Your task to perform on an android device: turn on data saver in the chrome app Image 0: 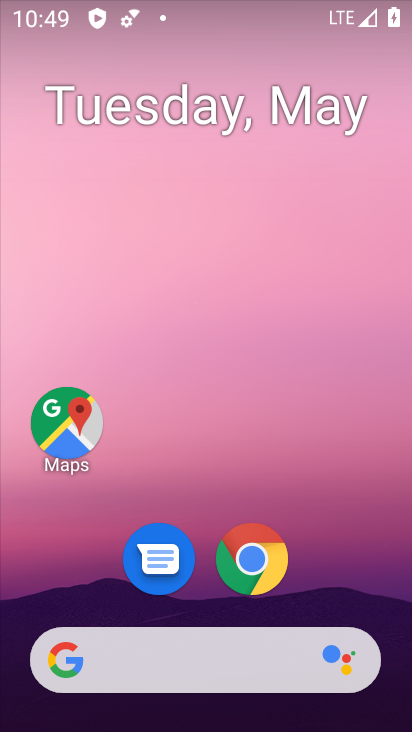
Step 0: drag from (325, 567) to (330, 173)
Your task to perform on an android device: turn on data saver in the chrome app Image 1: 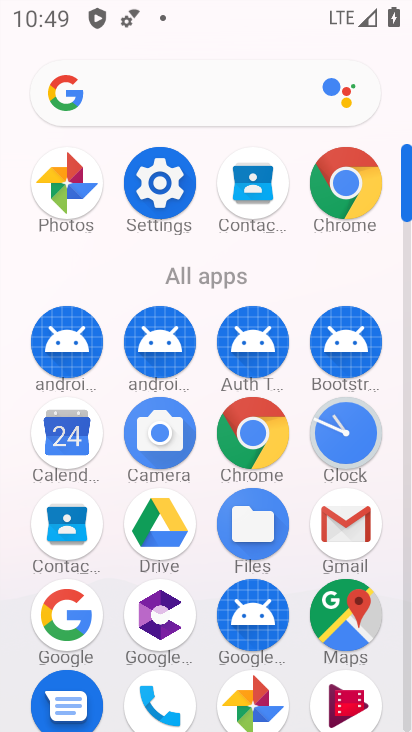
Step 1: click (253, 448)
Your task to perform on an android device: turn on data saver in the chrome app Image 2: 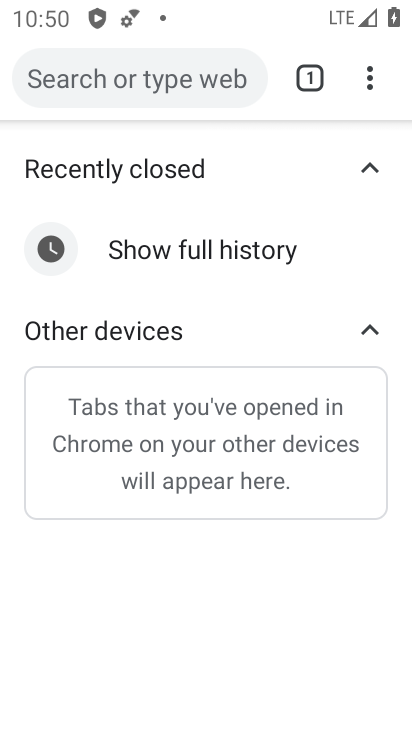
Step 2: drag from (367, 89) to (134, 623)
Your task to perform on an android device: turn on data saver in the chrome app Image 3: 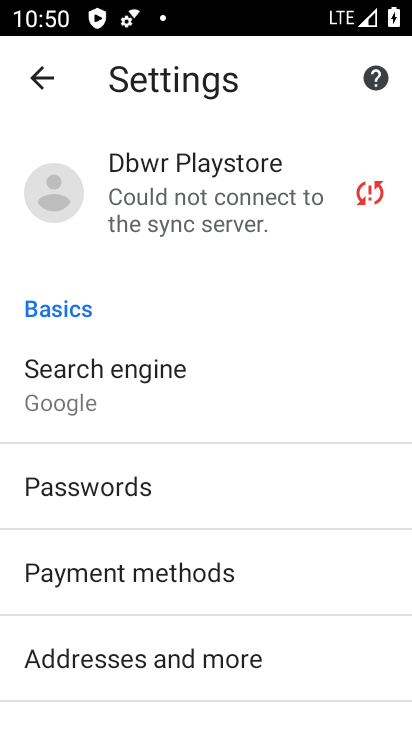
Step 3: drag from (273, 680) to (291, 386)
Your task to perform on an android device: turn on data saver in the chrome app Image 4: 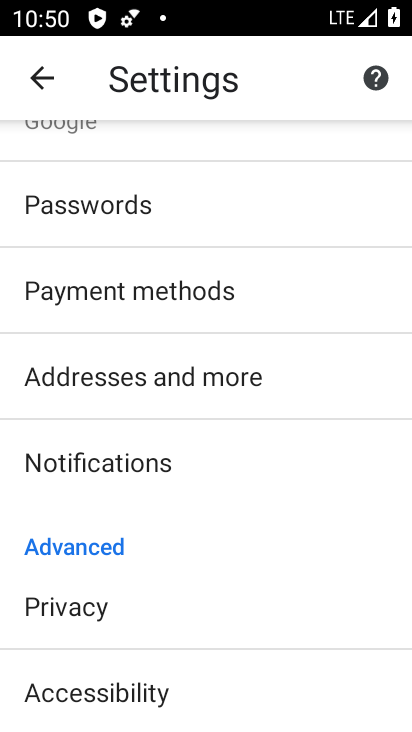
Step 4: drag from (277, 646) to (296, 341)
Your task to perform on an android device: turn on data saver in the chrome app Image 5: 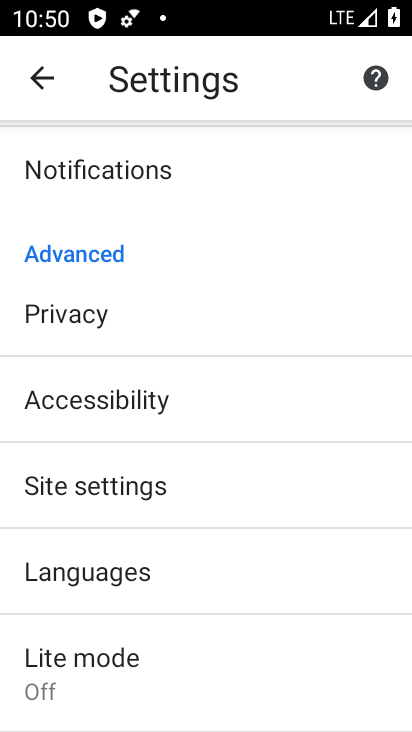
Step 5: drag from (201, 656) to (269, 390)
Your task to perform on an android device: turn on data saver in the chrome app Image 6: 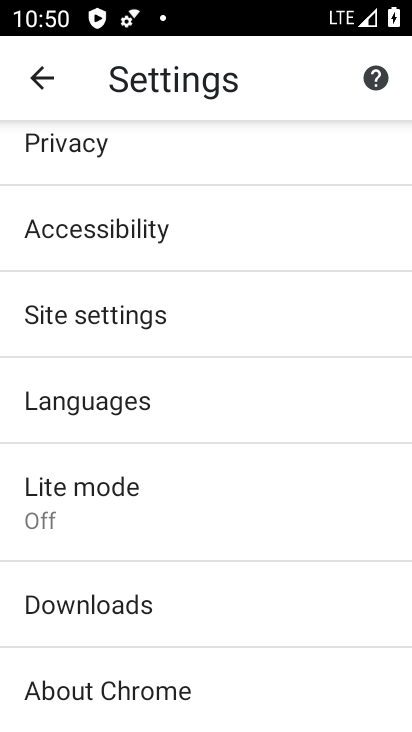
Step 6: click (141, 493)
Your task to perform on an android device: turn on data saver in the chrome app Image 7: 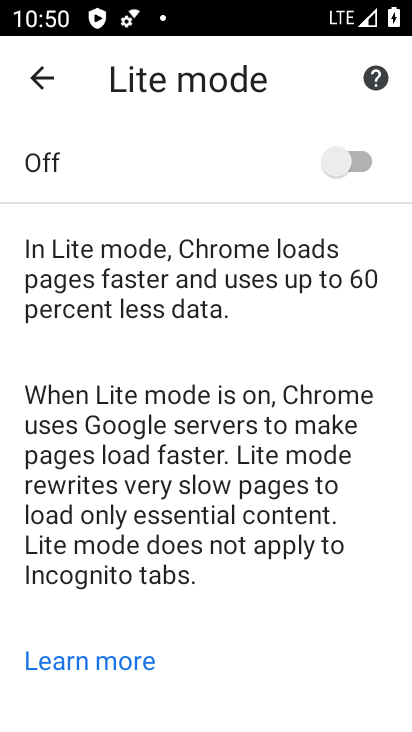
Step 7: click (368, 170)
Your task to perform on an android device: turn on data saver in the chrome app Image 8: 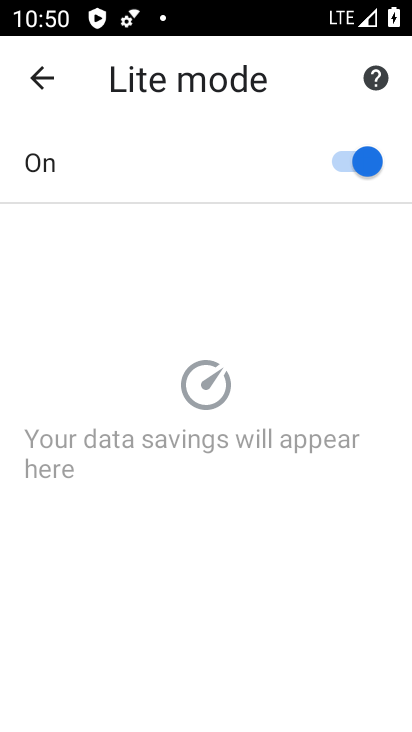
Step 8: task complete